Your task to perform on an android device: Open display settings Image 0: 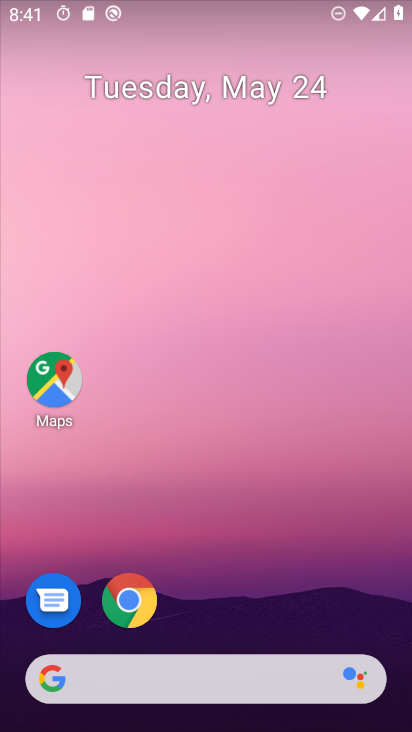
Step 0: drag from (288, 501) to (288, 109)
Your task to perform on an android device: Open display settings Image 1: 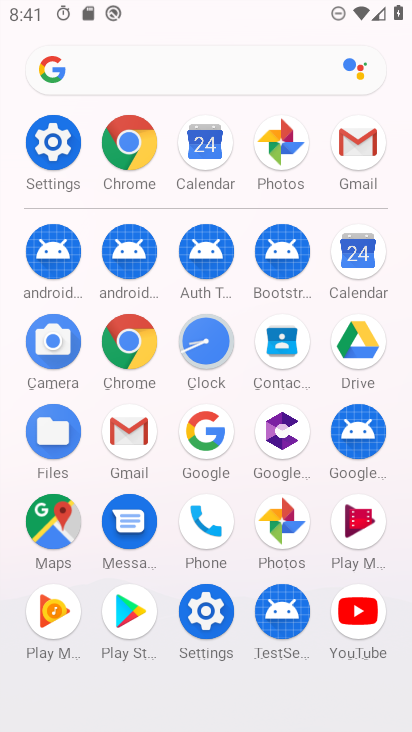
Step 1: click (49, 137)
Your task to perform on an android device: Open display settings Image 2: 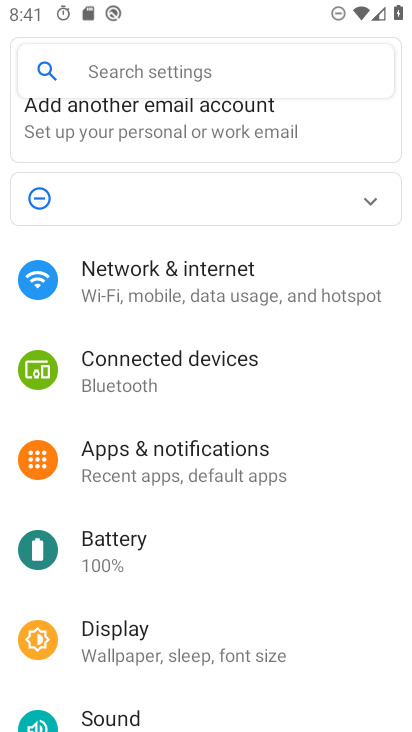
Step 2: click (132, 642)
Your task to perform on an android device: Open display settings Image 3: 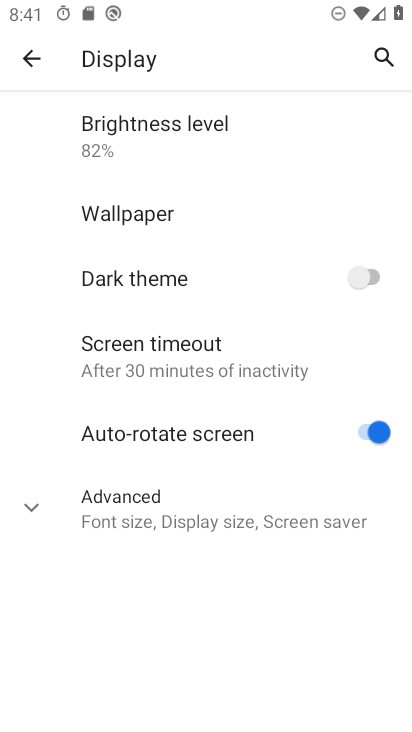
Step 3: task complete